Your task to perform on an android device: Go to eBay Image 0: 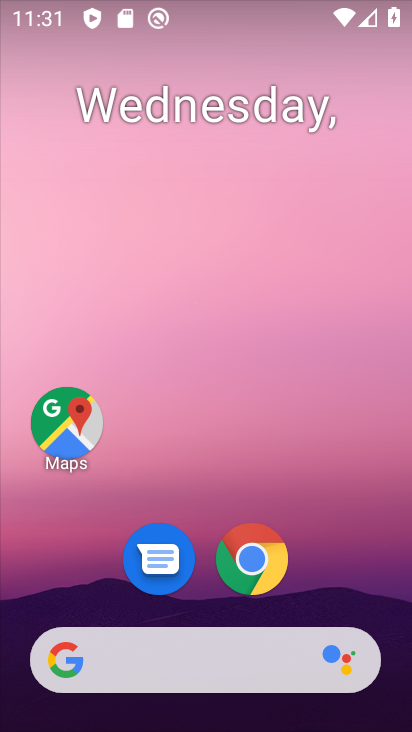
Step 0: click (267, 556)
Your task to perform on an android device: Go to eBay Image 1: 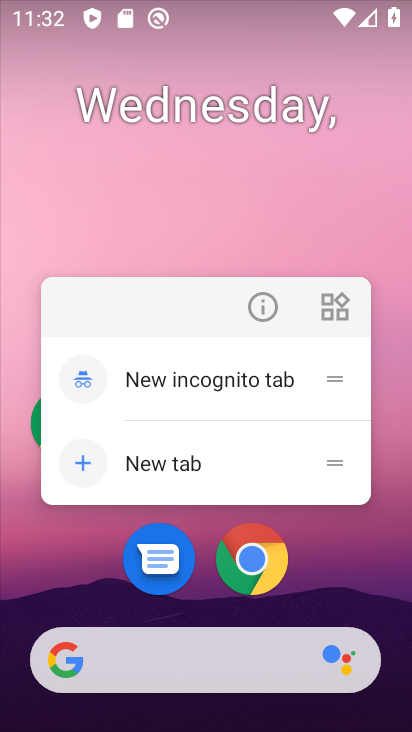
Step 1: click (278, 562)
Your task to perform on an android device: Go to eBay Image 2: 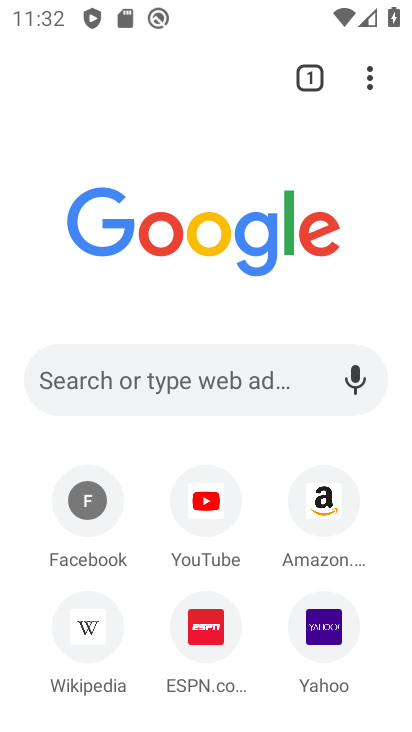
Step 2: drag from (382, 618) to (348, 299)
Your task to perform on an android device: Go to eBay Image 3: 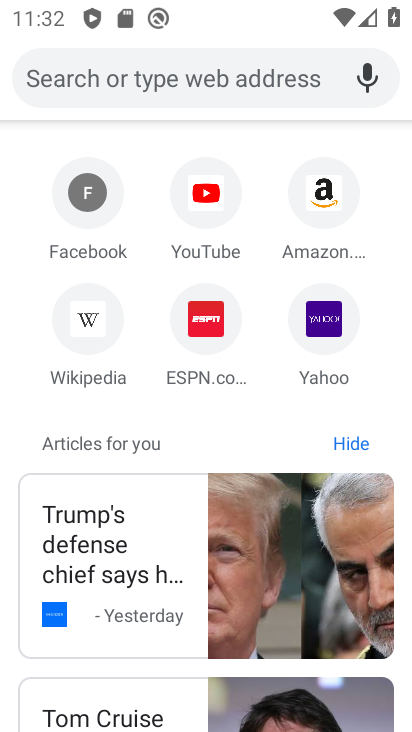
Step 3: click (108, 81)
Your task to perform on an android device: Go to eBay Image 4: 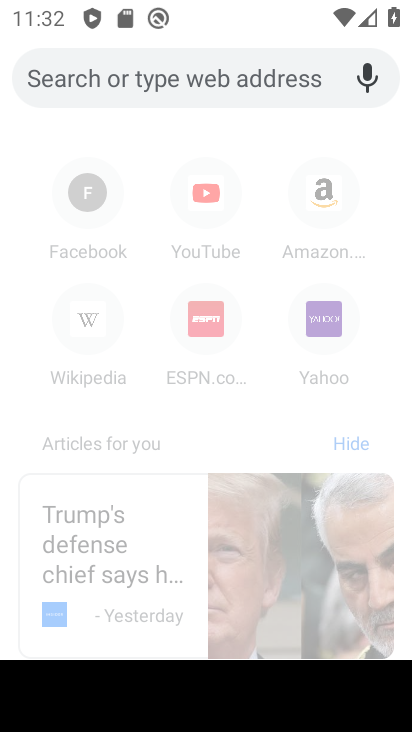
Step 4: type "ebay"
Your task to perform on an android device: Go to eBay Image 5: 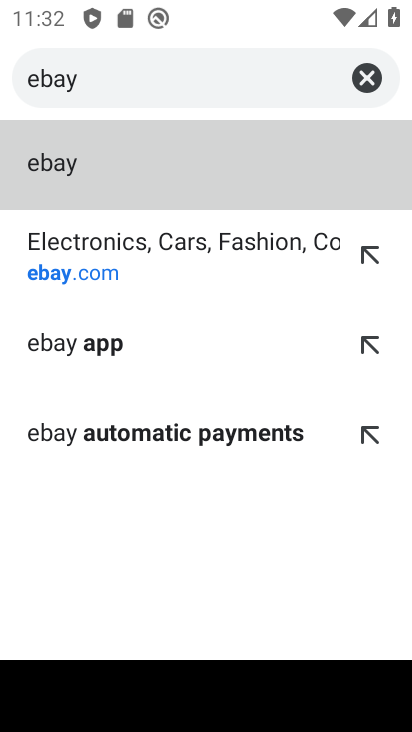
Step 5: click (66, 174)
Your task to perform on an android device: Go to eBay Image 6: 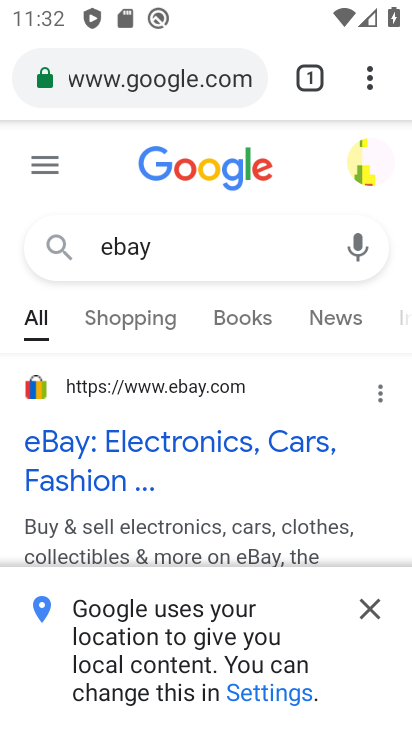
Step 6: task complete